Your task to perform on an android device: find photos in the google photos app Image 0: 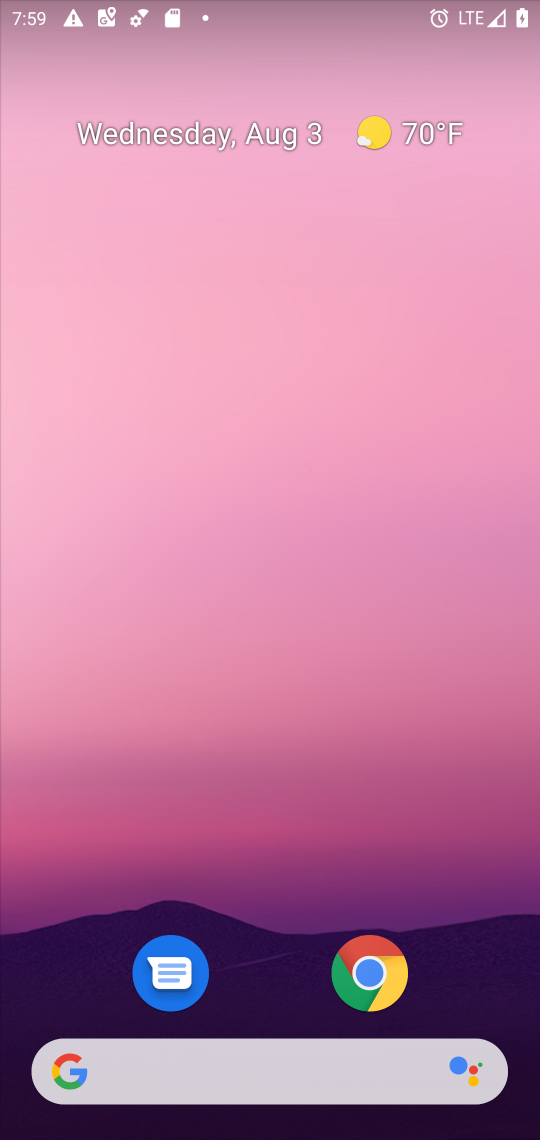
Step 0: press home button
Your task to perform on an android device: find photos in the google photos app Image 1: 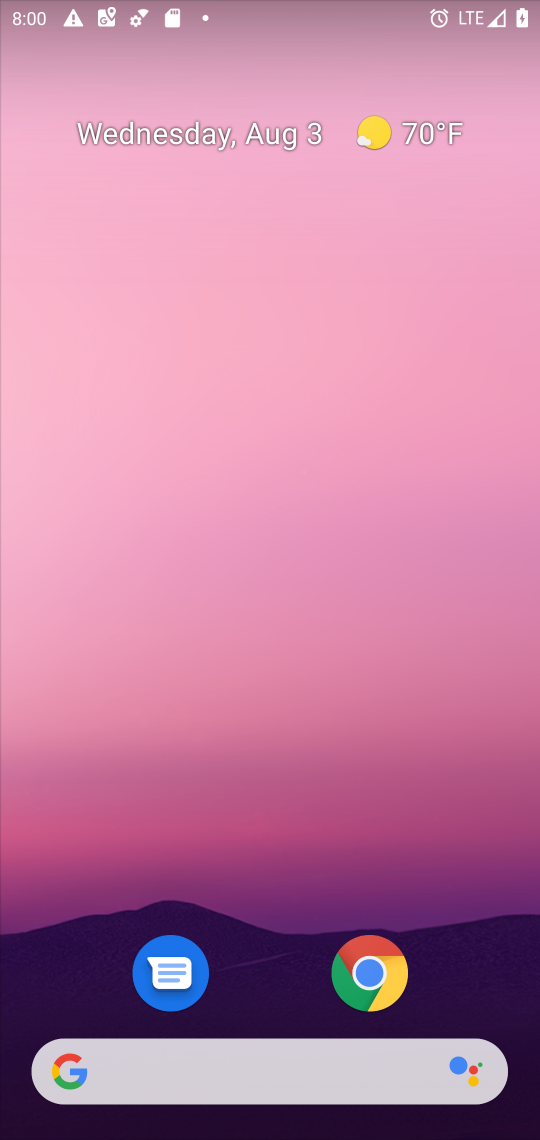
Step 1: drag from (283, 1012) to (329, 185)
Your task to perform on an android device: find photos in the google photos app Image 2: 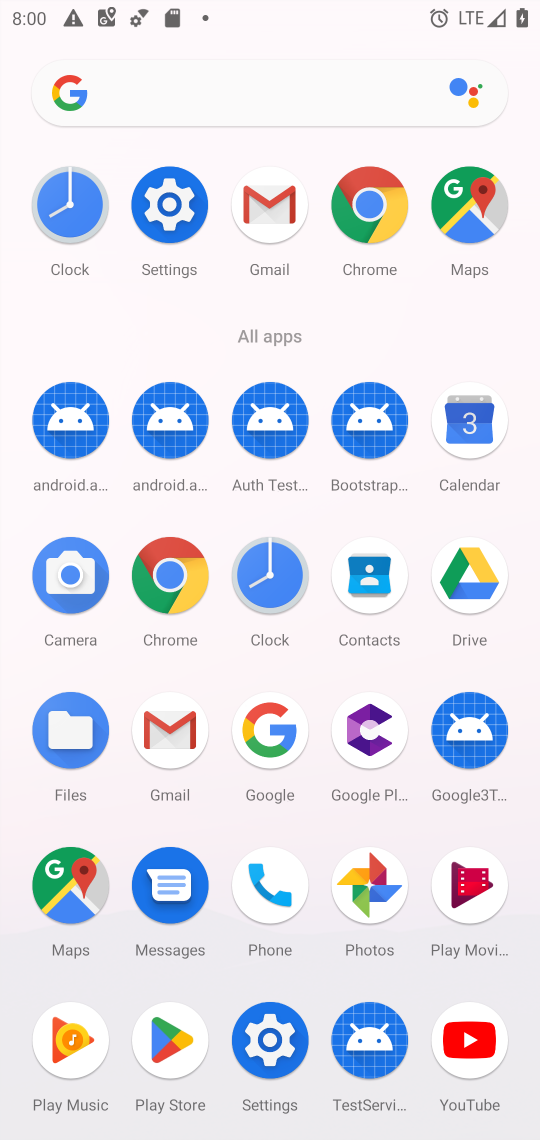
Step 2: click (365, 875)
Your task to perform on an android device: find photos in the google photos app Image 3: 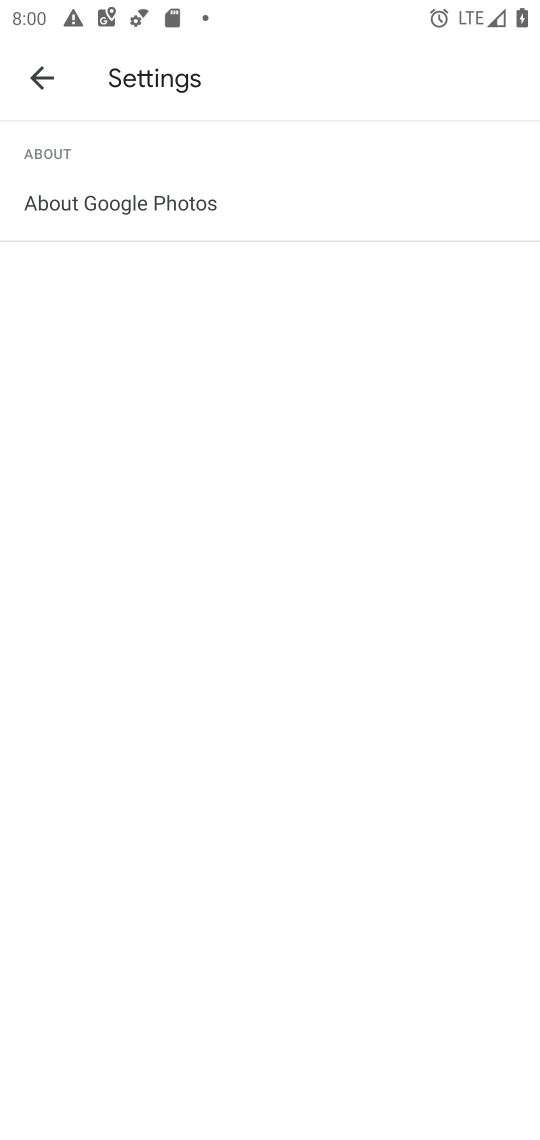
Step 3: click (39, 80)
Your task to perform on an android device: find photos in the google photos app Image 4: 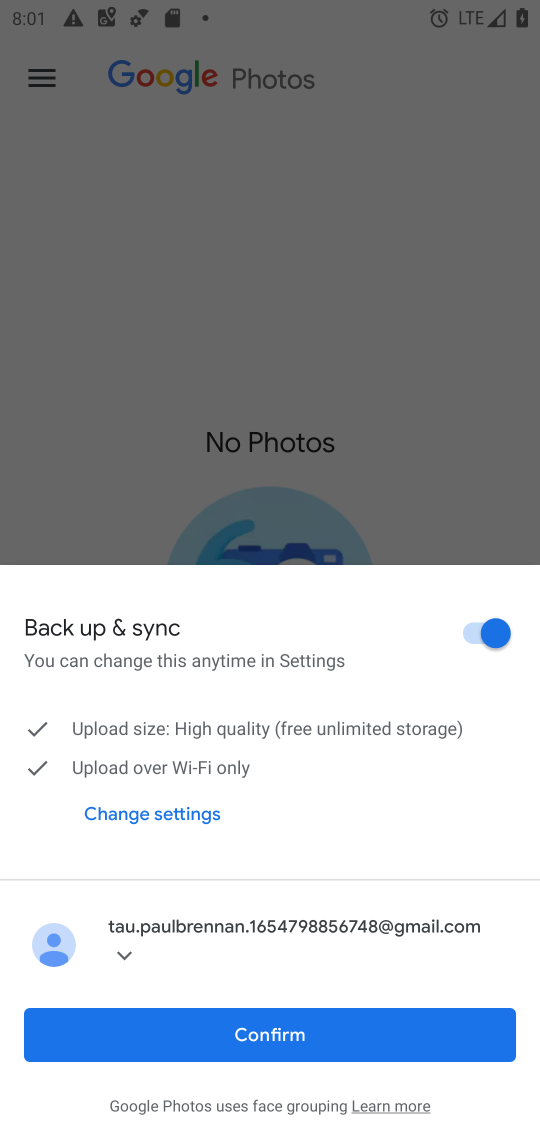
Step 4: click (274, 1041)
Your task to perform on an android device: find photos in the google photos app Image 5: 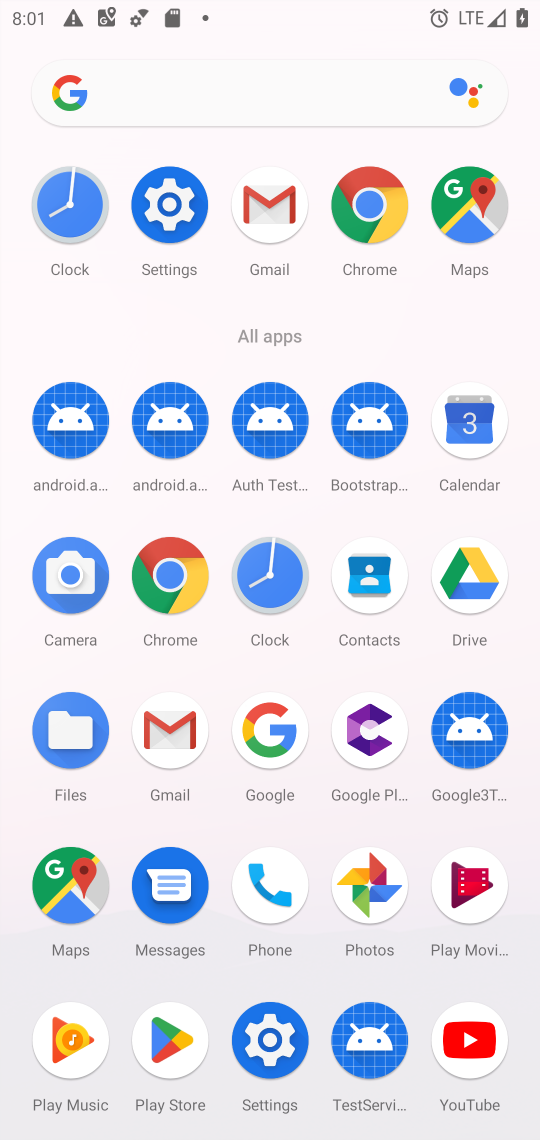
Step 5: click (374, 877)
Your task to perform on an android device: find photos in the google photos app Image 6: 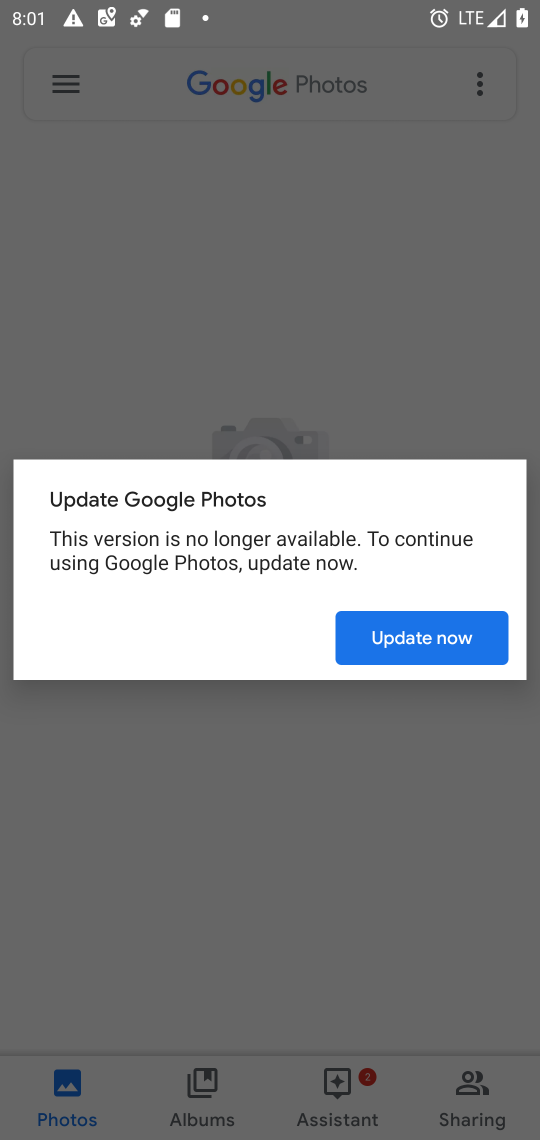
Step 6: click (418, 630)
Your task to perform on an android device: find photos in the google photos app Image 7: 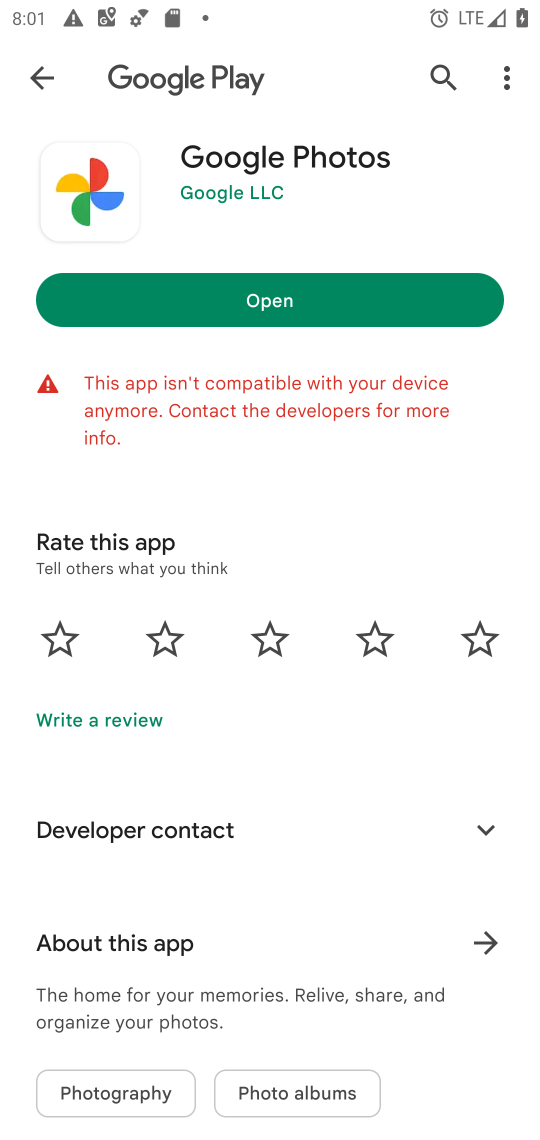
Step 7: click (289, 300)
Your task to perform on an android device: find photos in the google photos app Image 8: 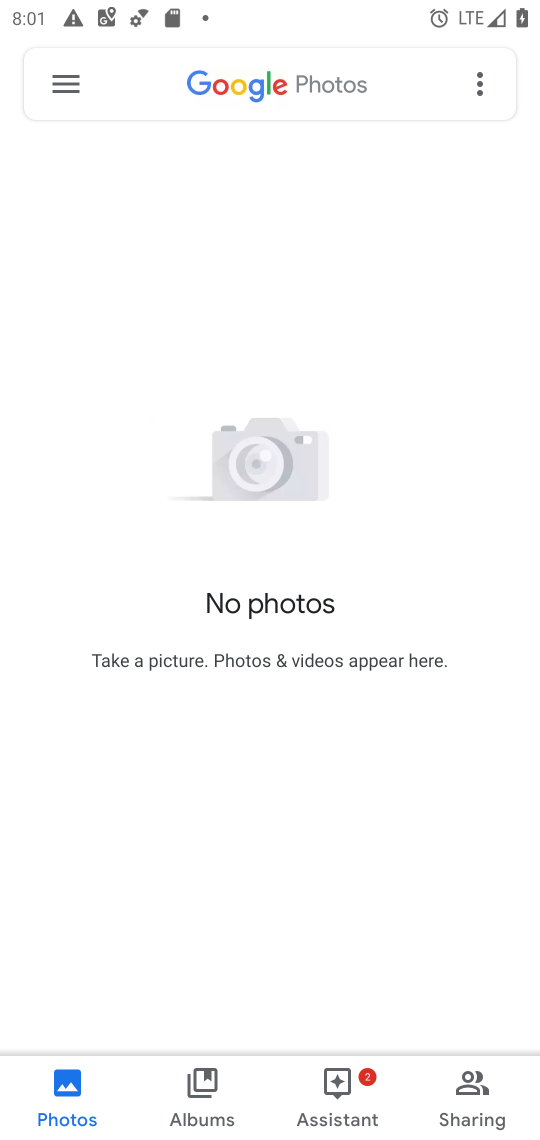
Step 8: task complete